Your task to perform on an android device: turn notification dots off Image 0: 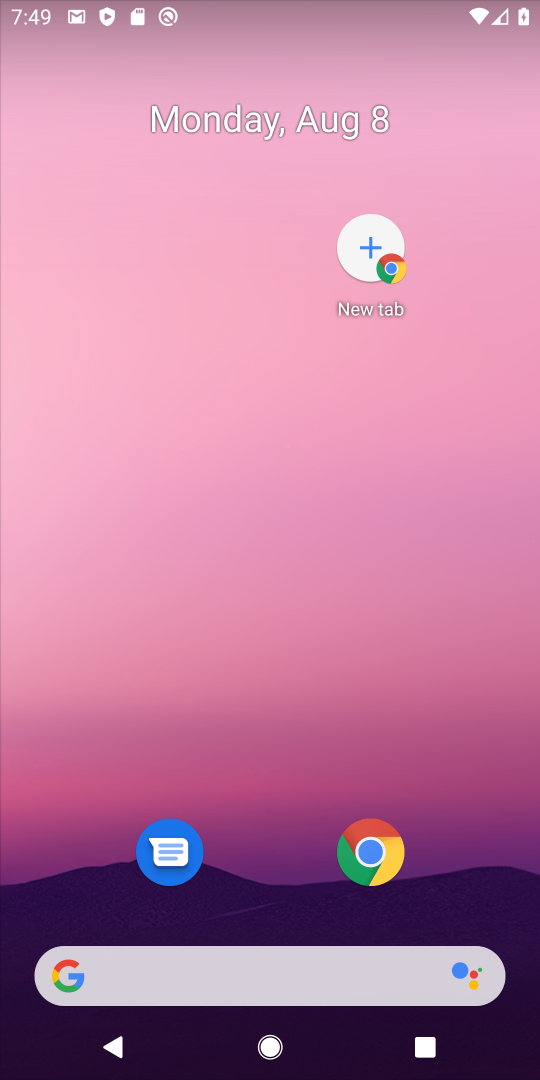
Step 0: click (186, 457)
Your task to perform on an android device: turn notification dots off Image 1: 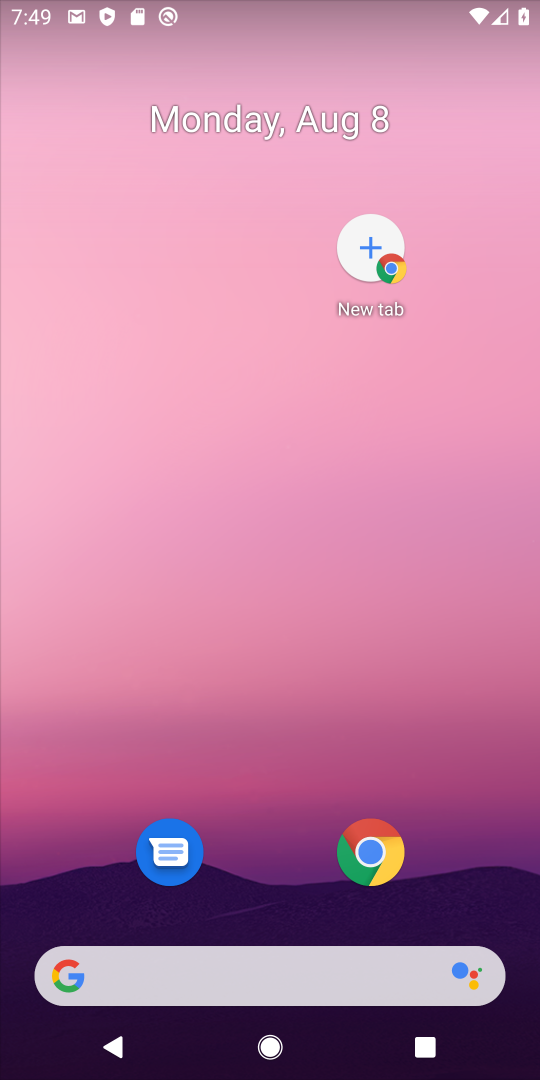
Step 1: drag from (250, 802) to (263, 383)
Your task to perform on an android device: turn notification dots off Image 2: 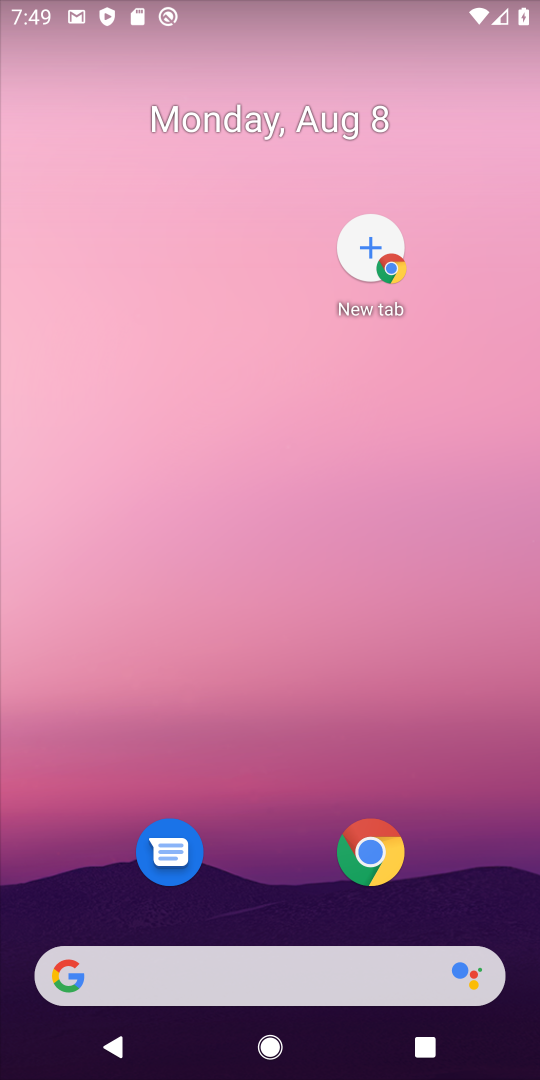
Step 2: drag from (300, 950) to (300, 286)
Your task to perform on an android device: turn notification dots off Image 3: 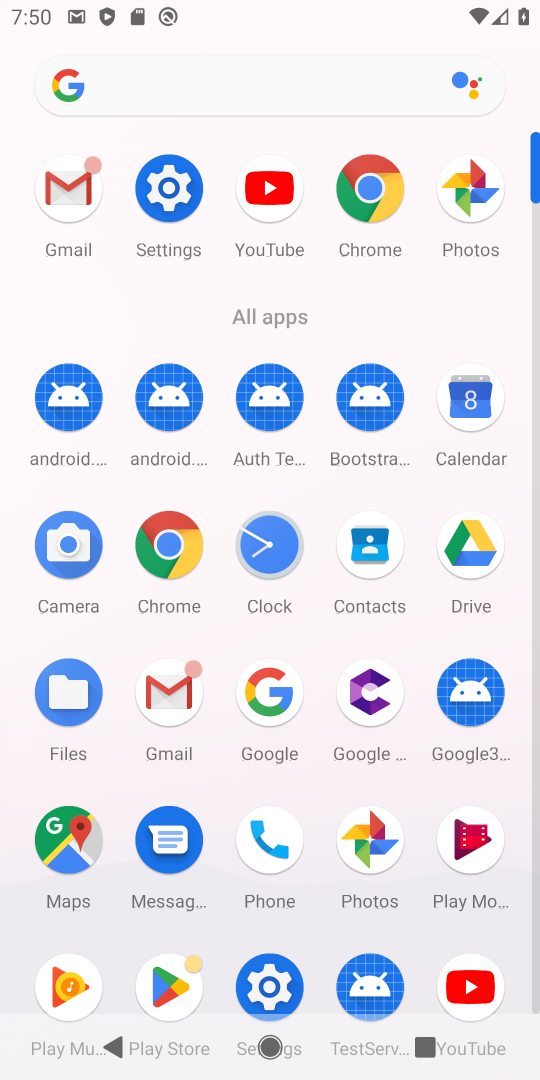
Step 3: click (160, 190)
Your task to perform on an android device: turn notification dots off Image 4: 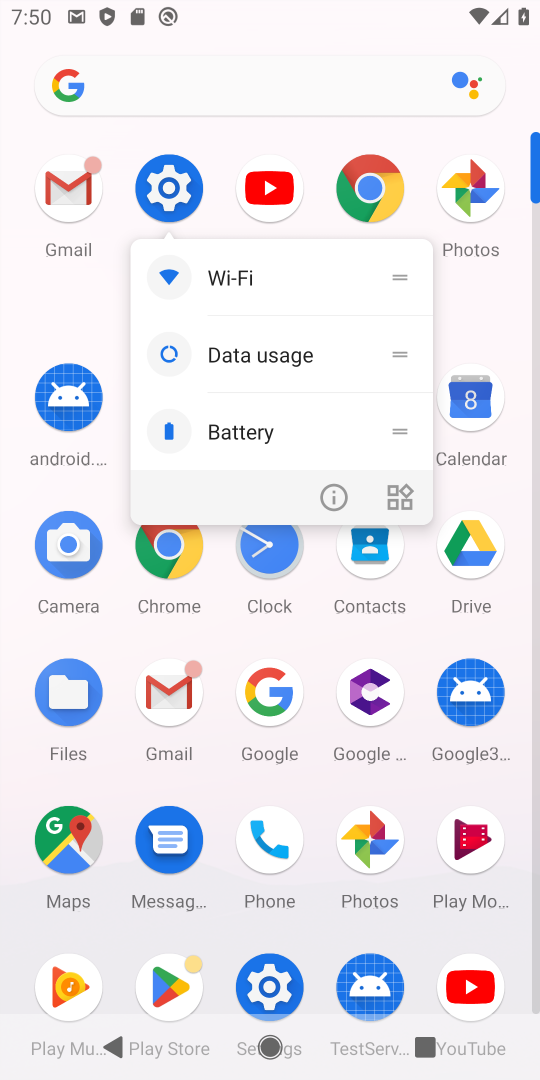
Step 4: click (169, 203)
Your task to perform on an android device: turn notification dots off Image 5: 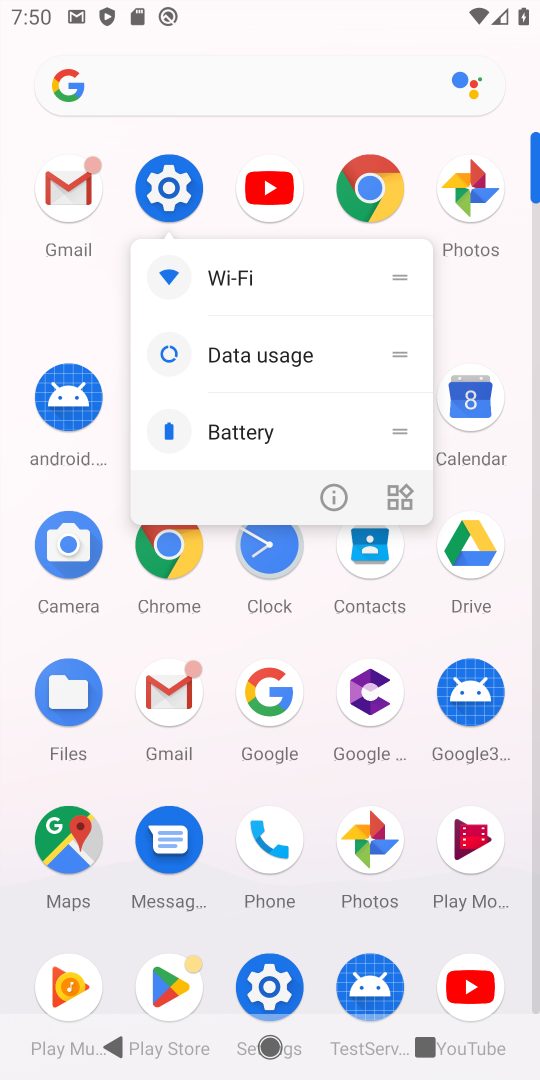
Step 5: click (172, 210)
Your task to perform on an android device: turn notification dots off Image 6: 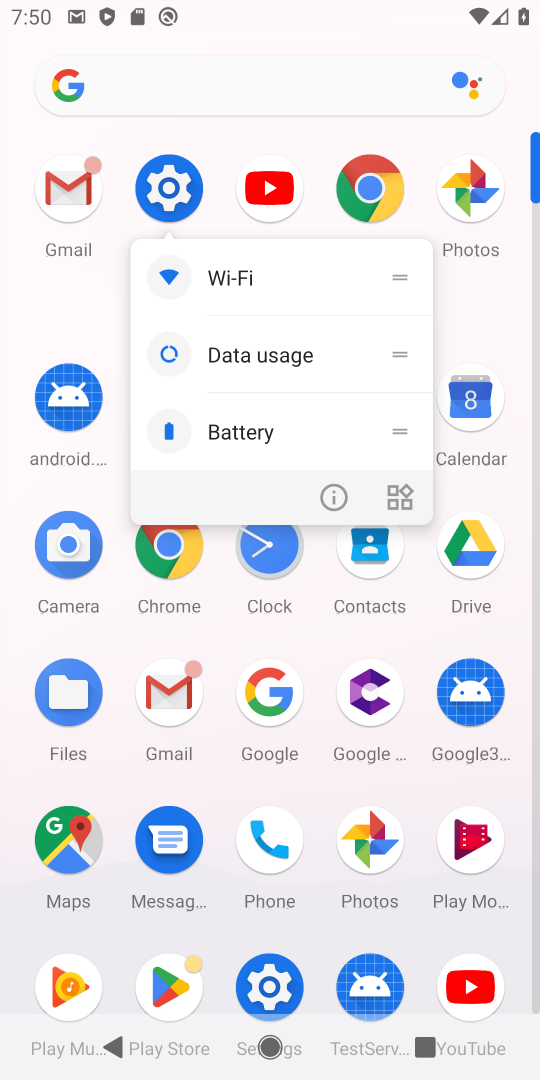
Step 6: click (174, 209)
Your task to perform on an android device: turn notification dots off Image 7: 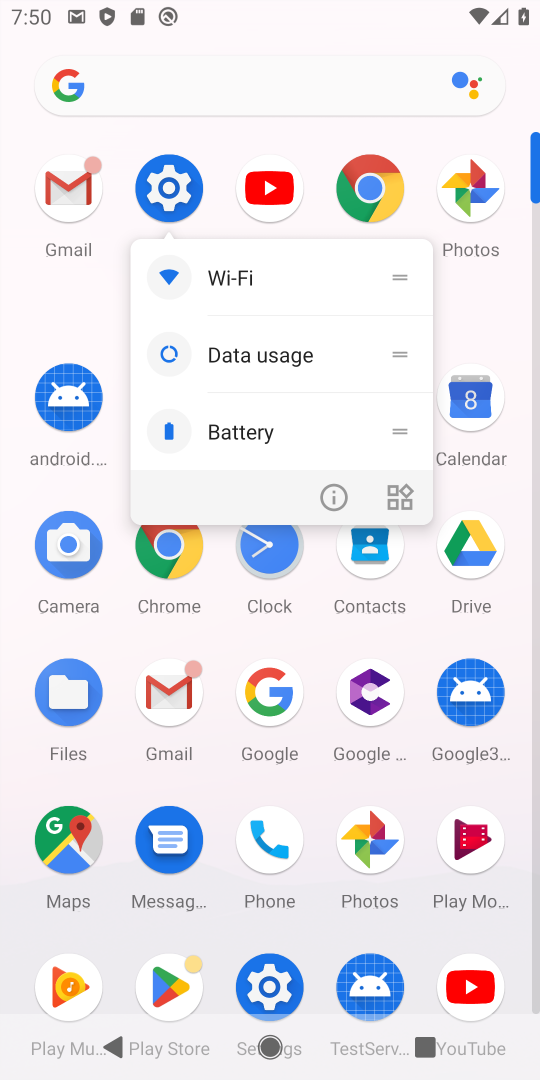
Step 7: click (174, 209)
Your task to perform on an android device: turn notification dots off Image 8: 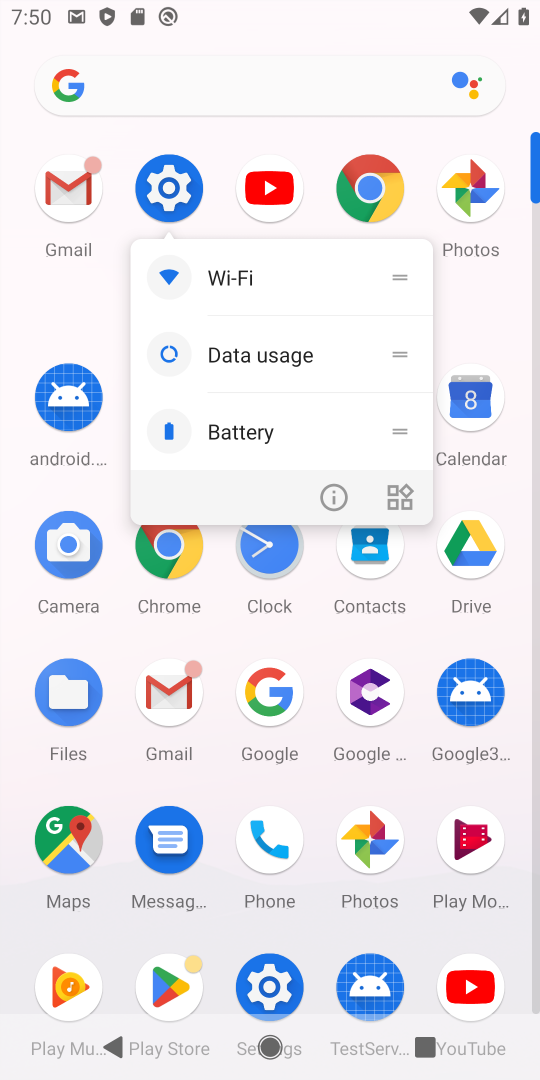
Step 8: click (178, 170)
Your task to perform on an android device: turn notification dots off Image 9: 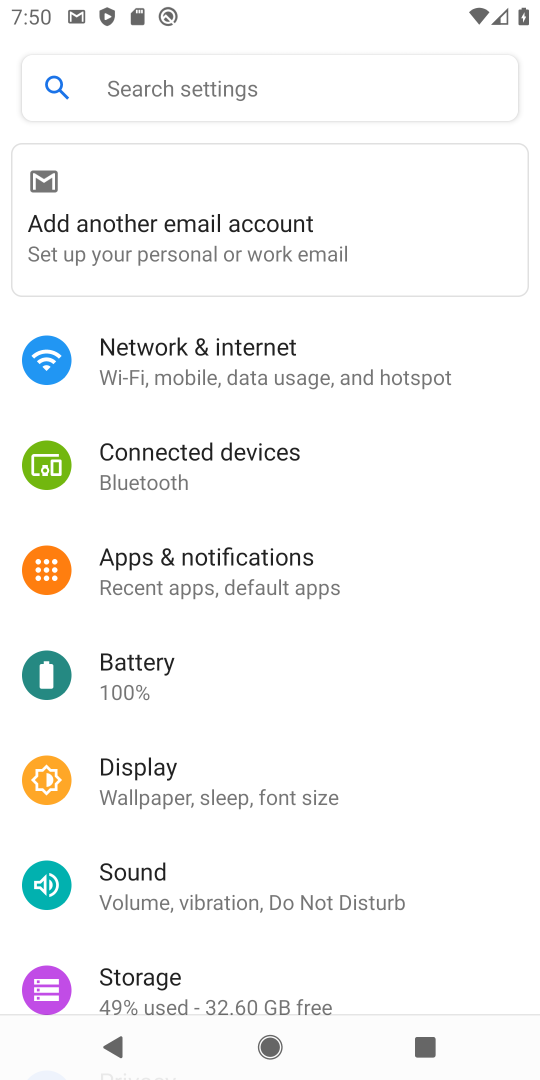
Step 9: click (158, 567)
Your task to perform on an android device: turn notification dots off Image 10: 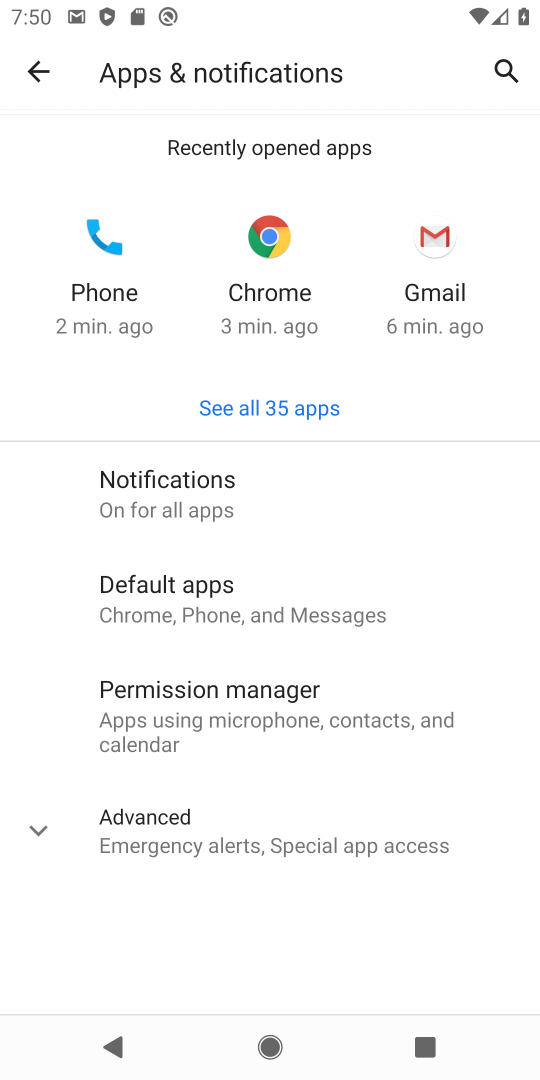
Step 10: click (185, 511)
Your task to perform on an android device: turn notification dots off Image 11: 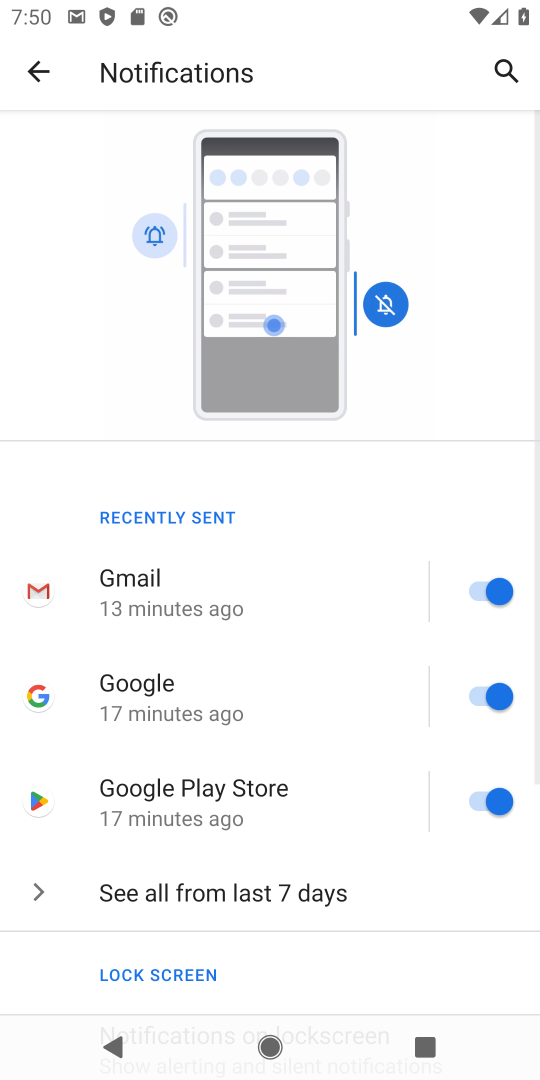
Step 11: drag from (246, 758) to (284, 202)
Your task to perform on an android device: turn notification dots off Image 12: 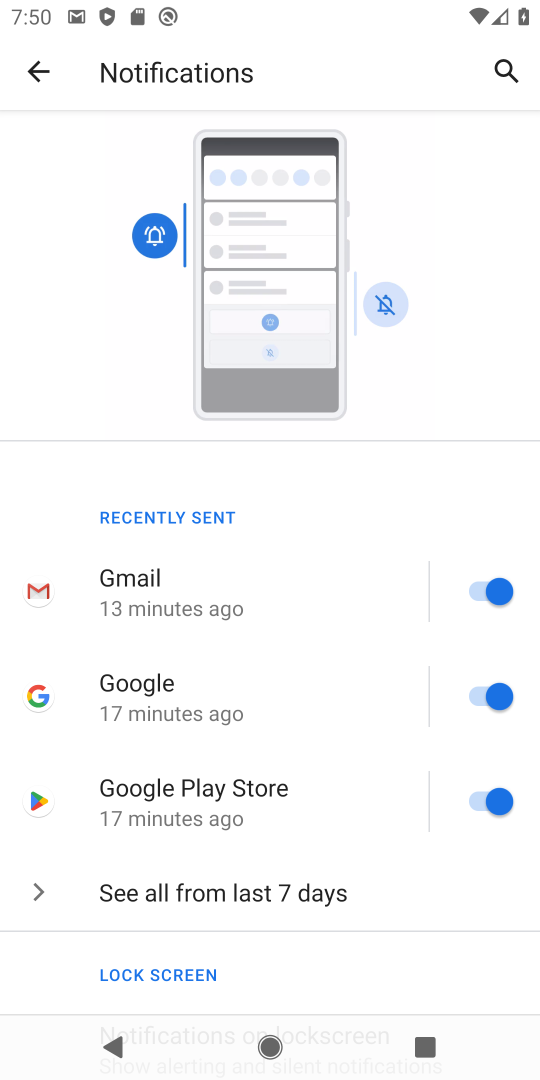
Step 12: drag from (224, 834) to (193, 349)
Your task to perform on an android device: turn notification dots off Image 13: 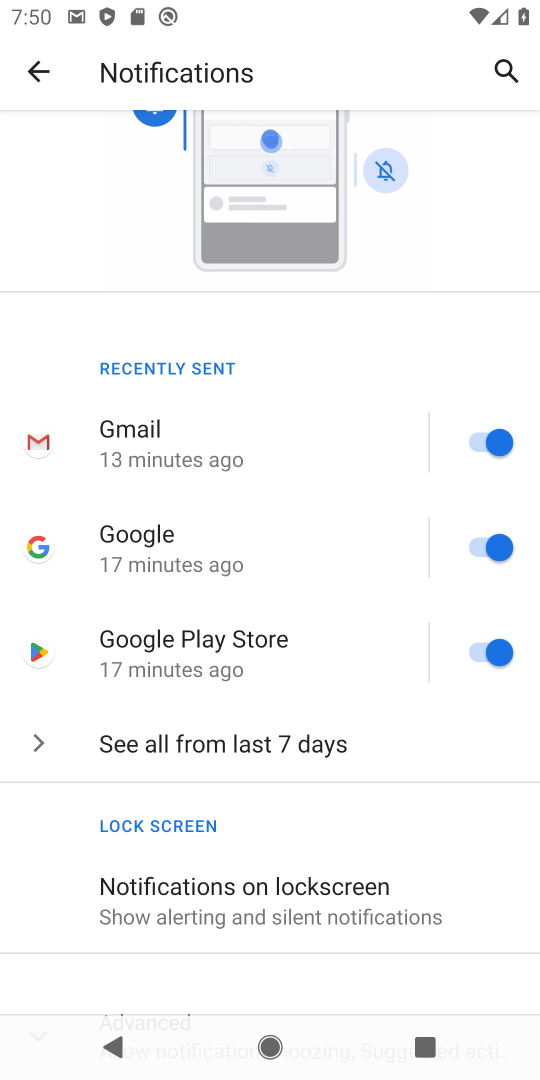
Step 13: drag from (196, 973) to (142, 485)
Your task to perform on an android device: turn notification dots off Image 14: 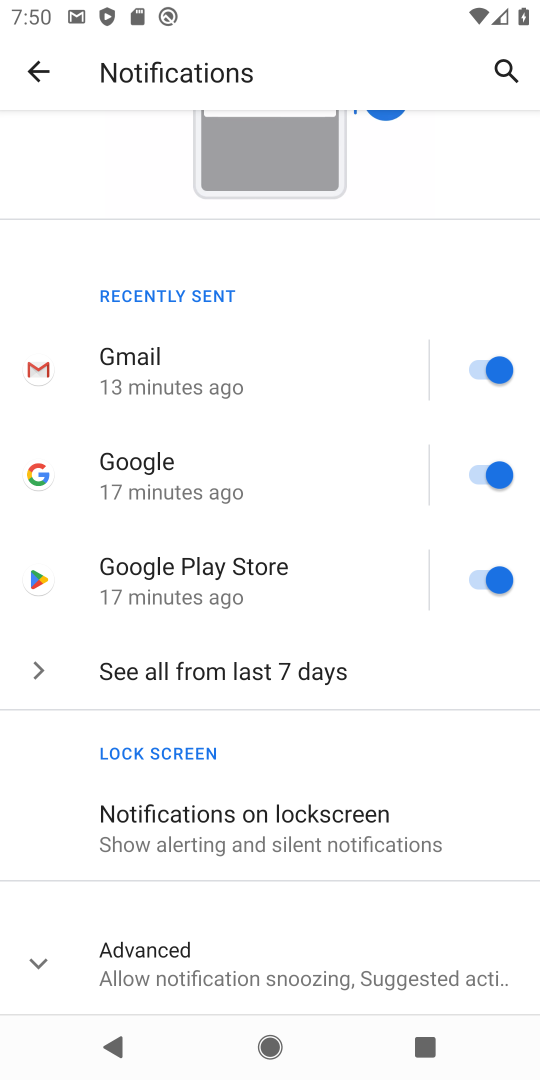
Step 14: click (180, 962)
Your task to perform on an android device: turn notification dots off Image 15: 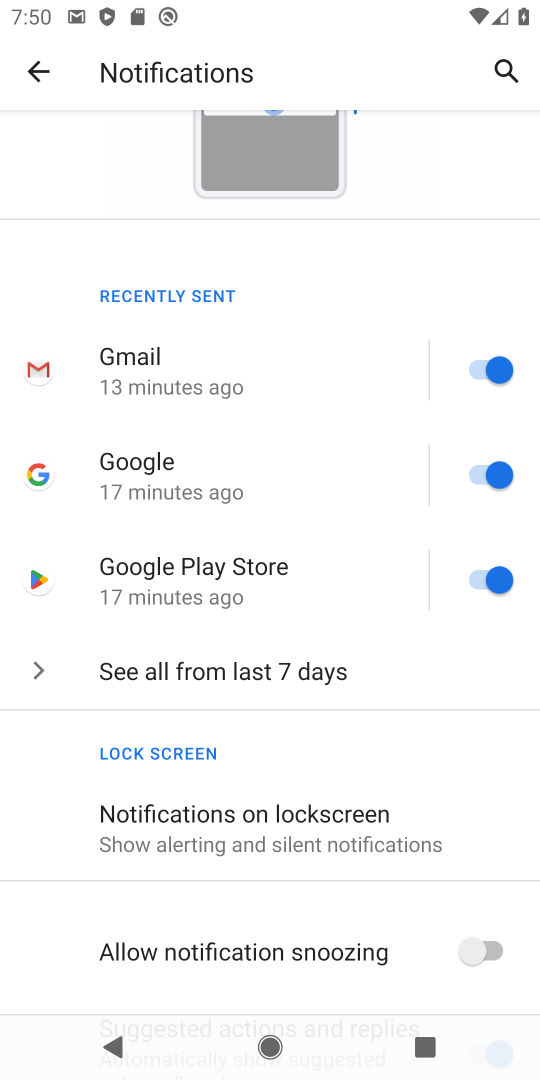
Step 15: drag from (300, 845) to (280, 498)
Your task to perform on an android device: turn notification dots off Image 16: 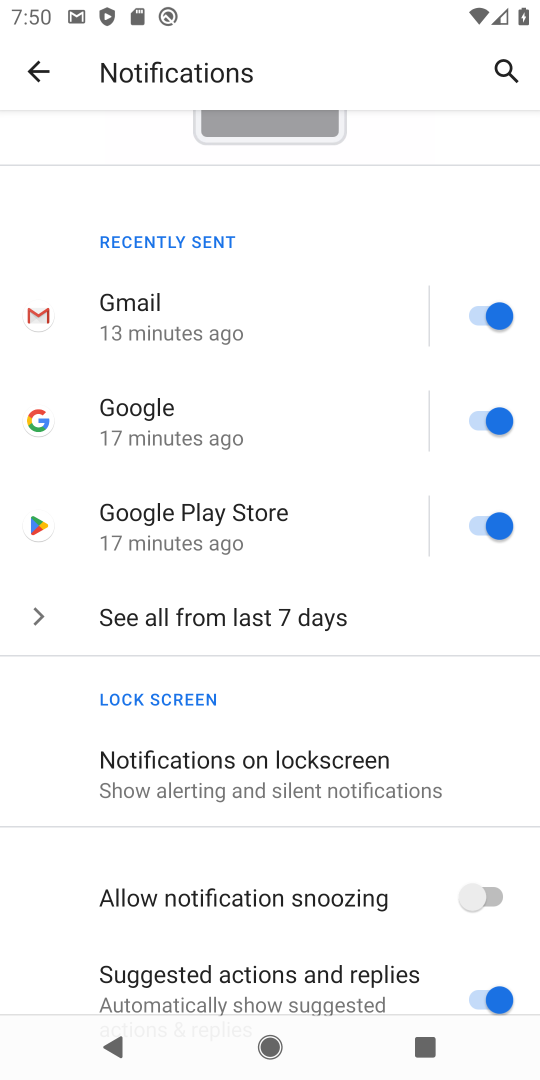
Step 16: drag from (251, 970) to (232, 474)
Your task to perform on an android device: turn notification dots off Image 17: 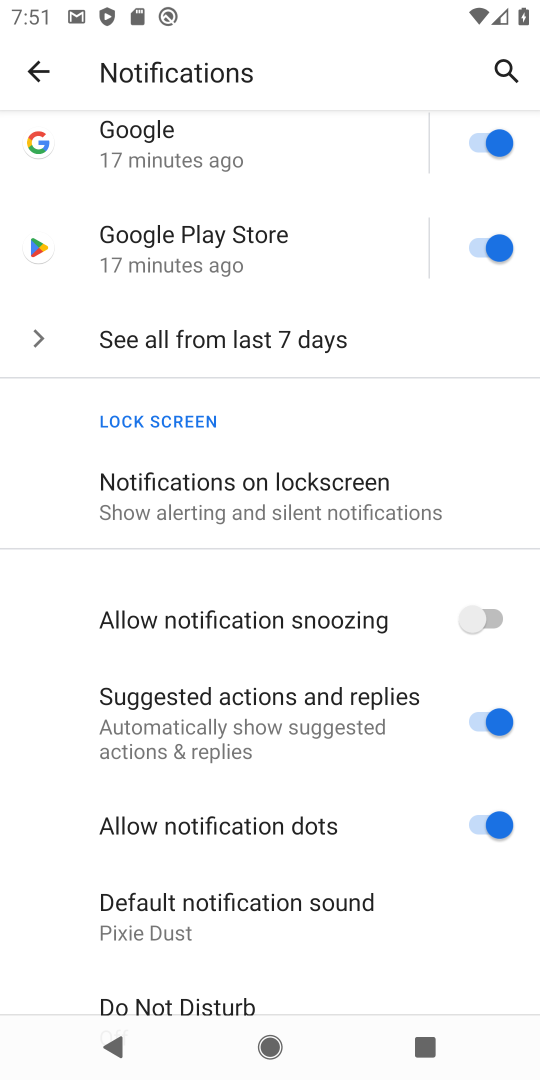
Step 17: click (484, 830)
Your task to perform on an android device: turn notification dots off Image 18: 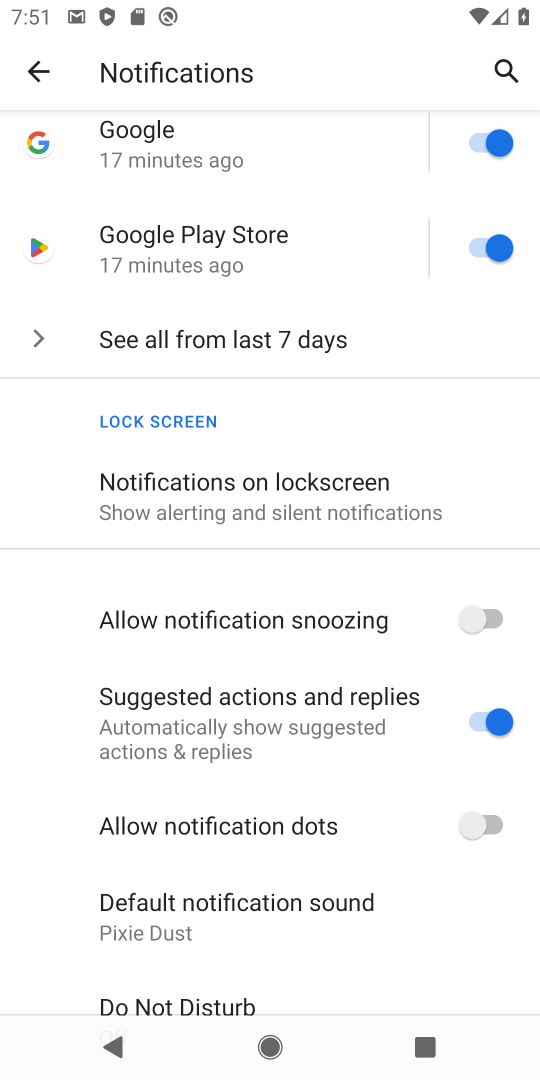
Step 18: task complete